Your task to perform on an android device: open chrome and create a bookmark for the current page Image 0: 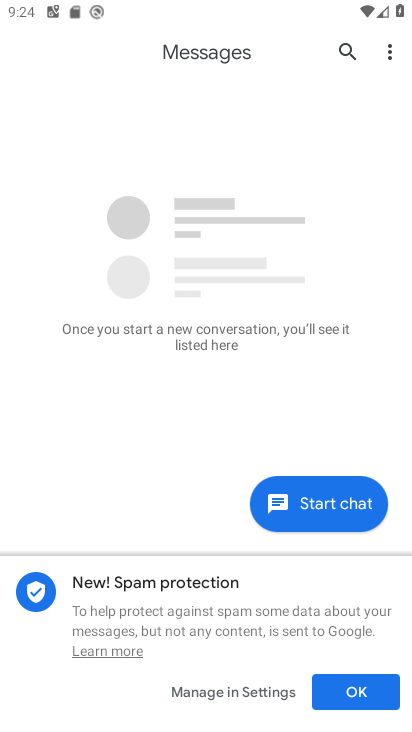
Step 0: press home button
Your task to perform on an android device: open chrome and create a bookmark for the current page Image 1: 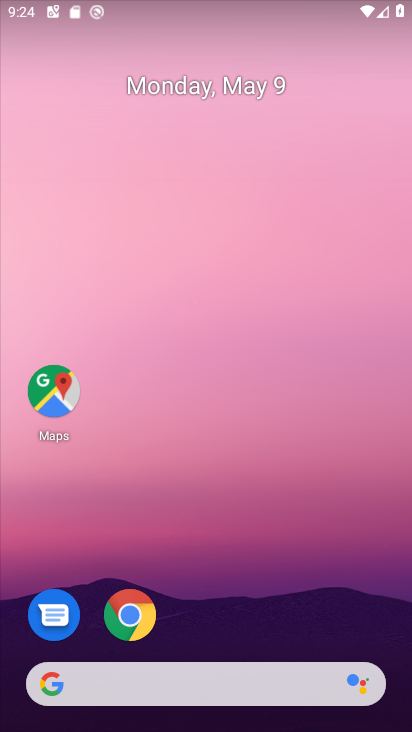
Step 1: drag from (293, 706) to (292, 239)
Your task to perform on an android device: open chrome and create a bookmark for the current page Image 2: 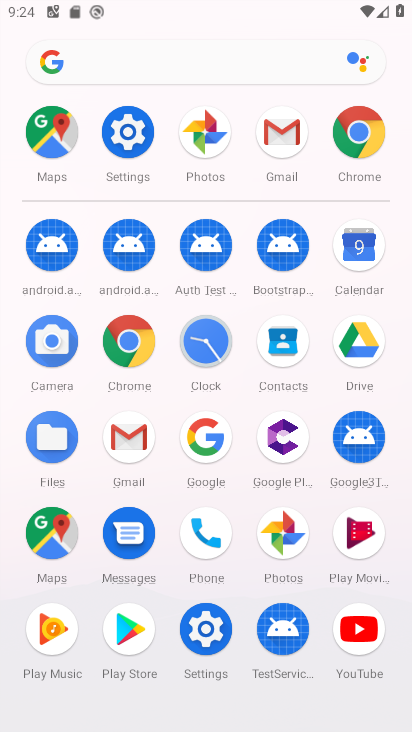
Step 2: click (342, 141)
Your task to perform on an android device: open chrome and create a bookmark for the current page Image 3: 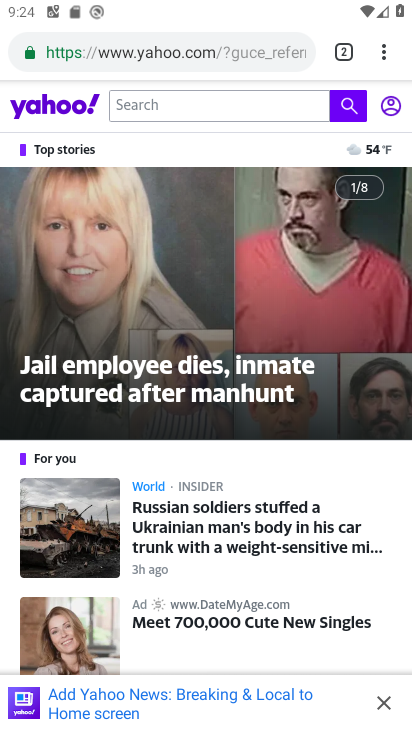
Step 3: click (388, 66)
Your task to perform on an android device: open chrome and create a bookmark for the current page Image 4: 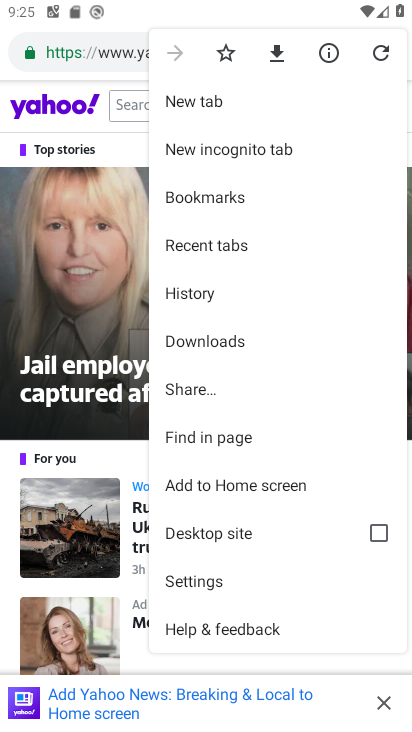
Step 4: click (233, 204)
Your task to perform on an android device: open chrome and create a bookmark for the current page Image 5: 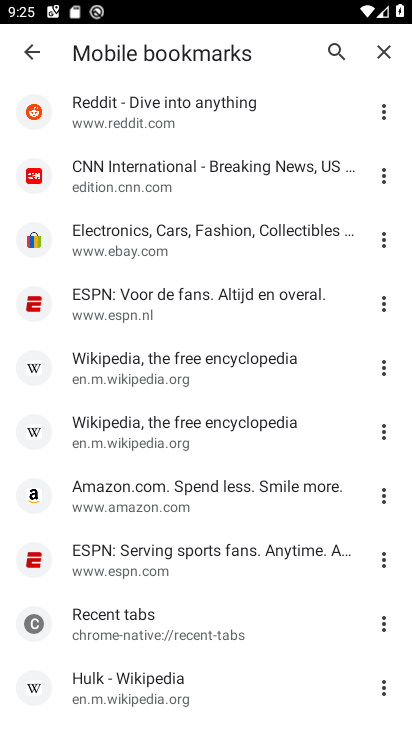
Step 5: task complete